Your task to perform on an android device: Search for "asus rog" on walmart, select the first entry, and add it to the cart. Image 0: 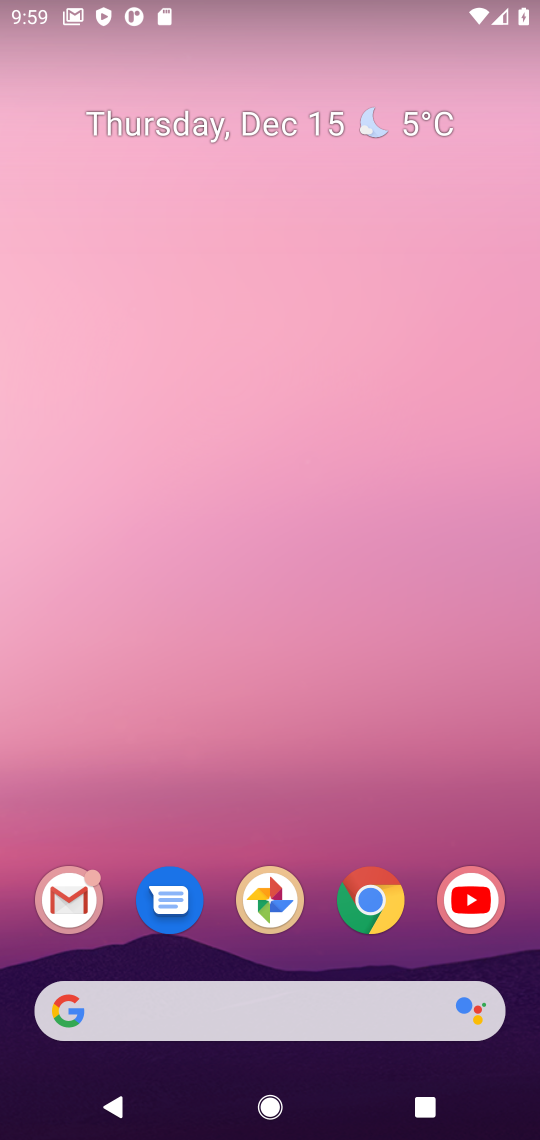
Step 0: click (382, 905)
Your task to perform on an android device: Search for "asus rog" on walmart, select the first entry, and add it to the cart. Image 1: 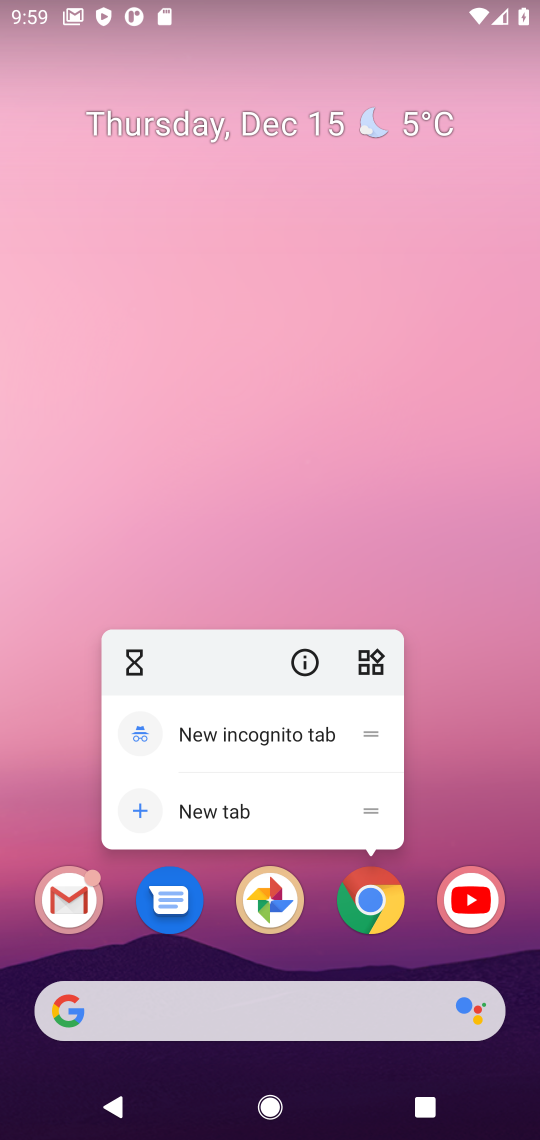
Step 1: click (381, 905)
Your task to perform on an android device: Search for "asus rog" on walmart, select the first entry, and add it to the cart. Image 2: 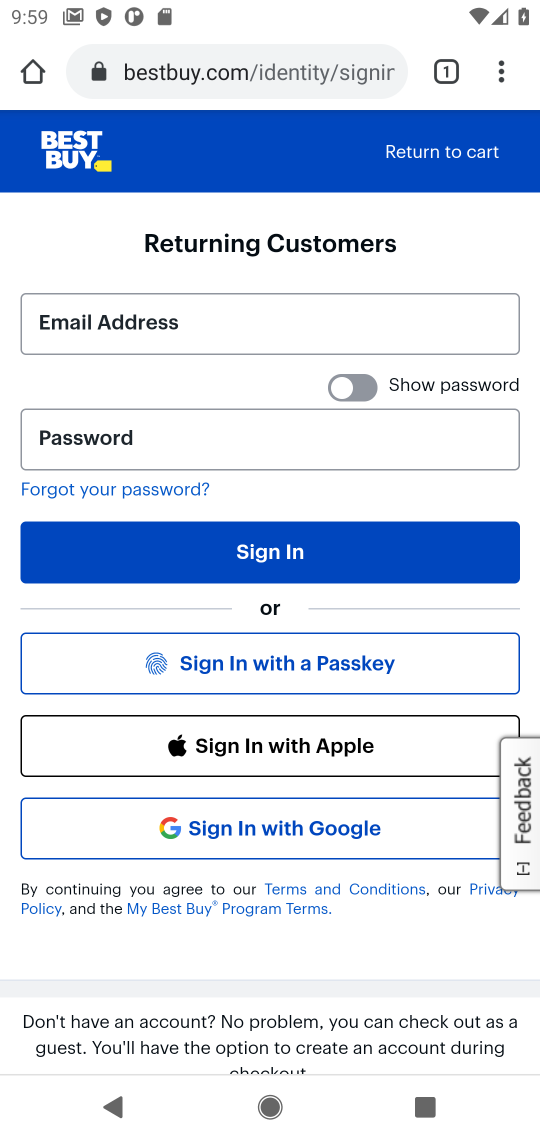
Step 2: click (188, 74)
Your task to perform on an android device: Search for "asus rog" on walmart, select the first entry, and add it to the cart. Image 3: 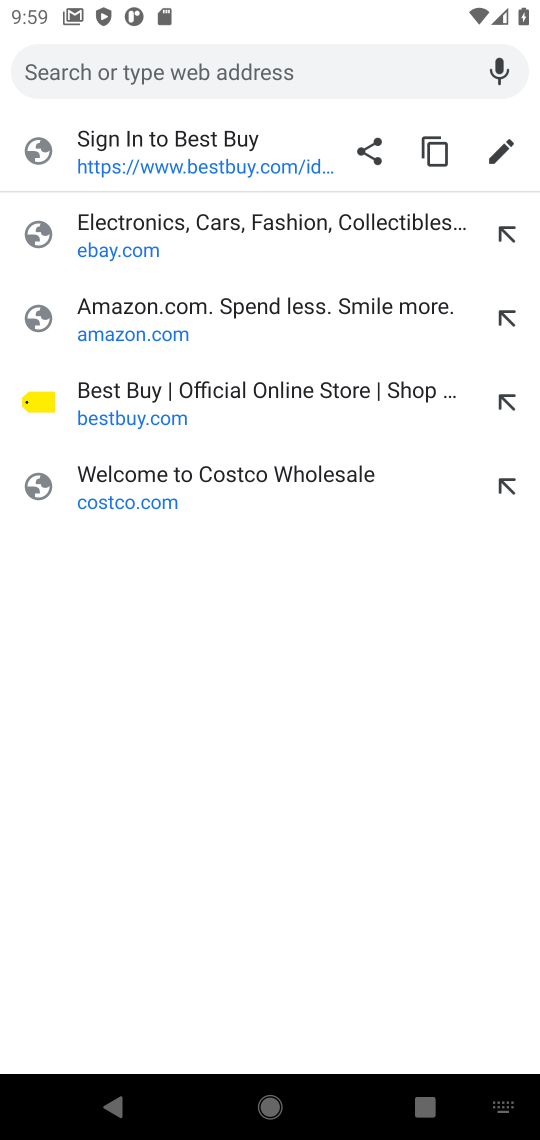
Step 3: type "walmart"
Your task to perform on an android device: Search for "asus rog" on walmart, select the first entry, and add it to the cart. Image 4: 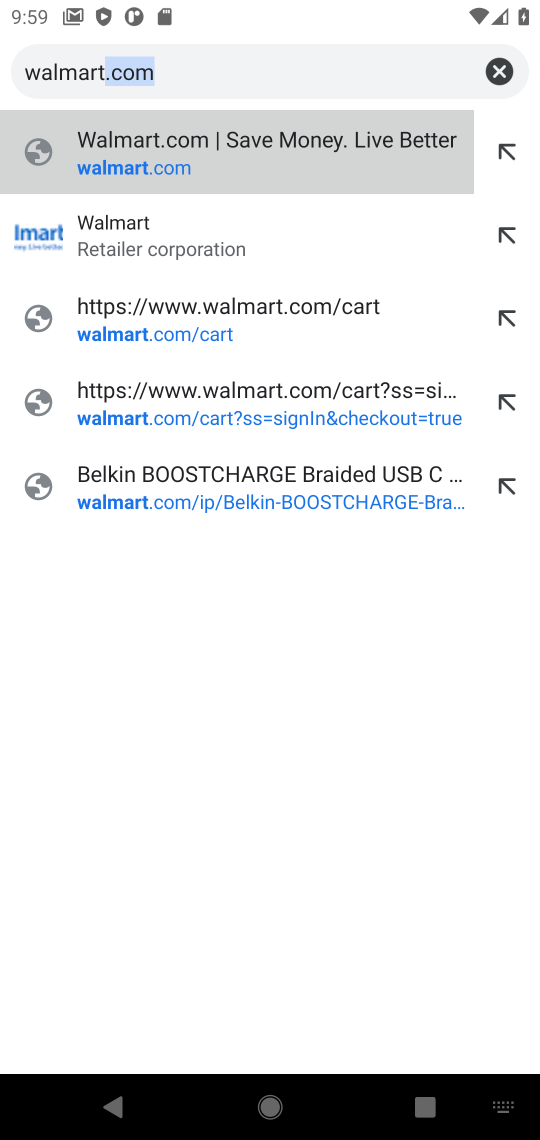
Step 4: click (225, 169)
Your task to perform on an android device: Search for "asus rog" on walmart, select the first entry, and add it to the cart. Image 5: 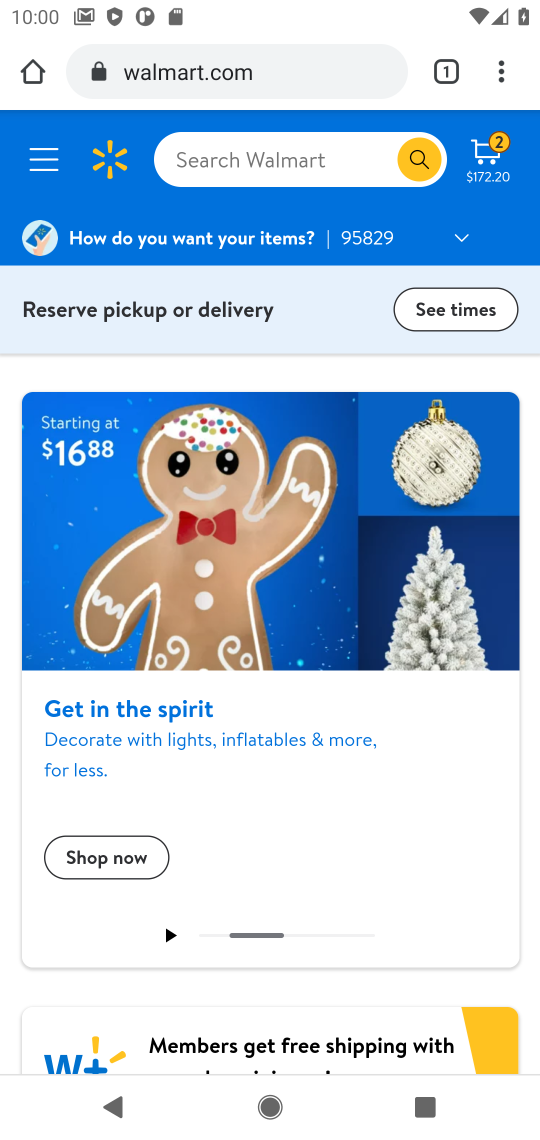
Step 5: click (233, 146)
Your task to perform on an android device: Search for "asus rog" on walmart, select the first entry, and add it to the cart. Image 6: 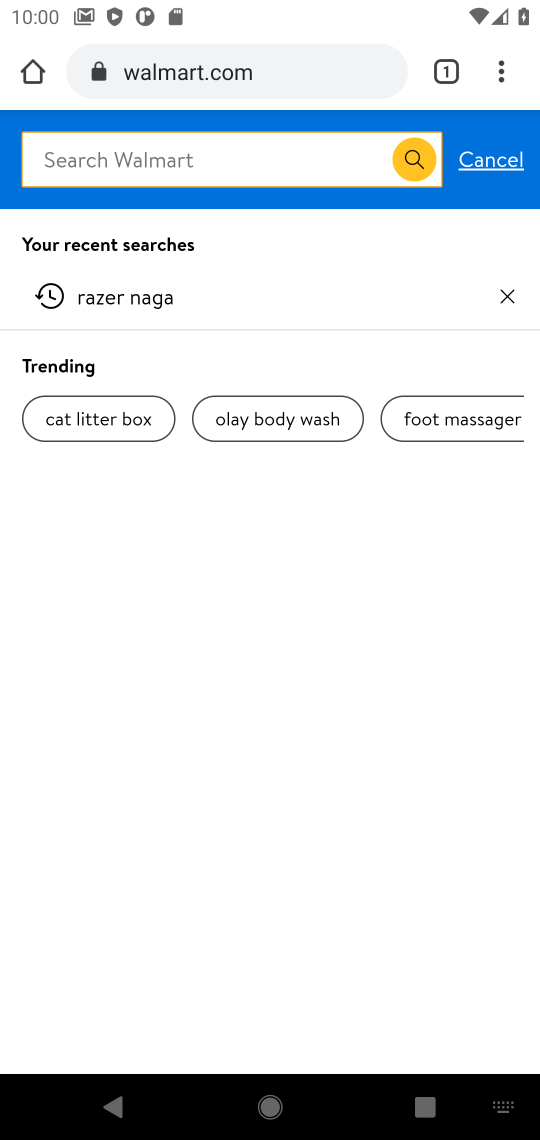
Step 6: type "asus rog"
Your task to perform on an android device: Search for "asus rog" on walmart, select the first entry, and add it to the cart. Image 7: 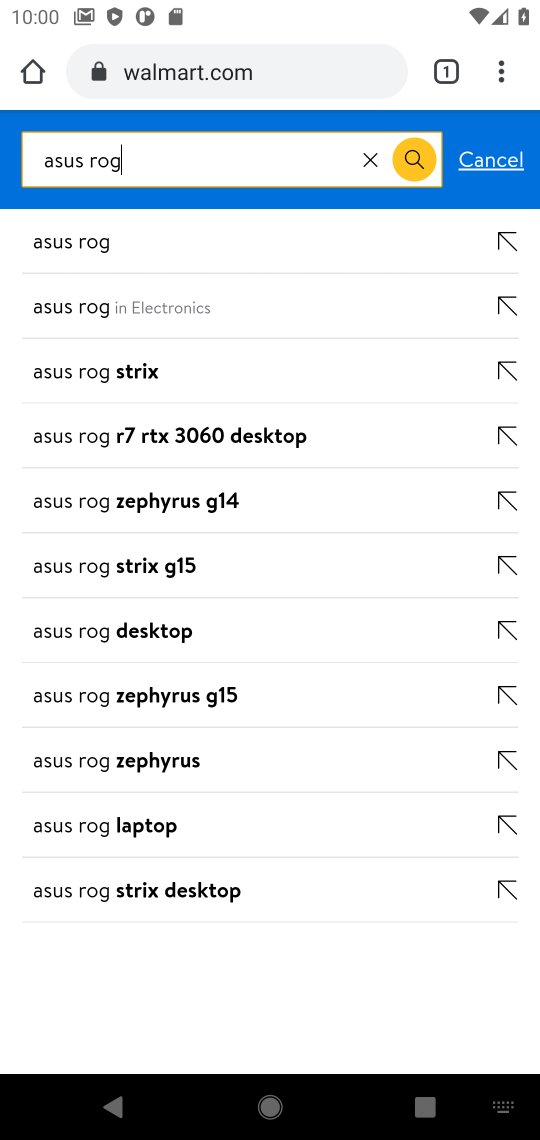
Step 7: click (413, 166)
Your task to perform on an android device: Search for "asus rog" on walmart, select the first entry, and add it to the cart. Image 8: 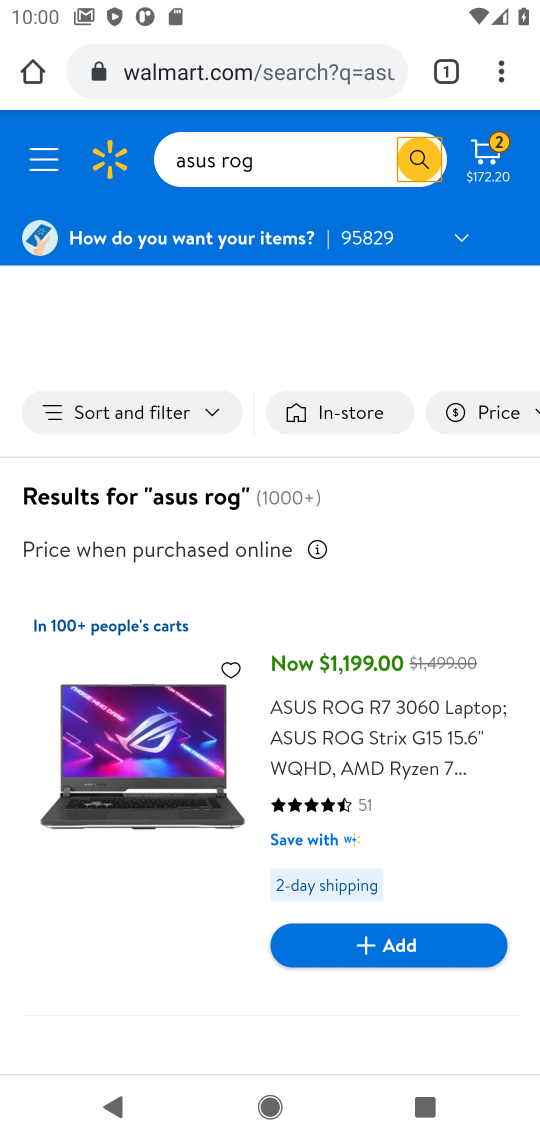
Step 8: click (369, 958)
Your task to perform on an android device: Search for "asus rog" on walmart, select the first entry, and add it to the cart. Image 9: 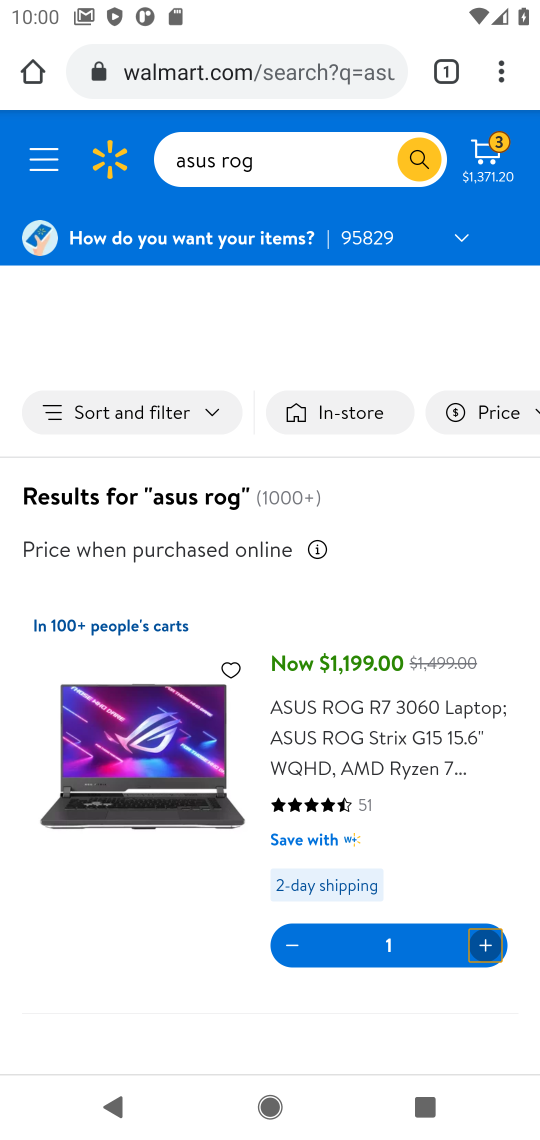
Step 9: task complete